Your task to perform on an android device: delete location history Image 0: 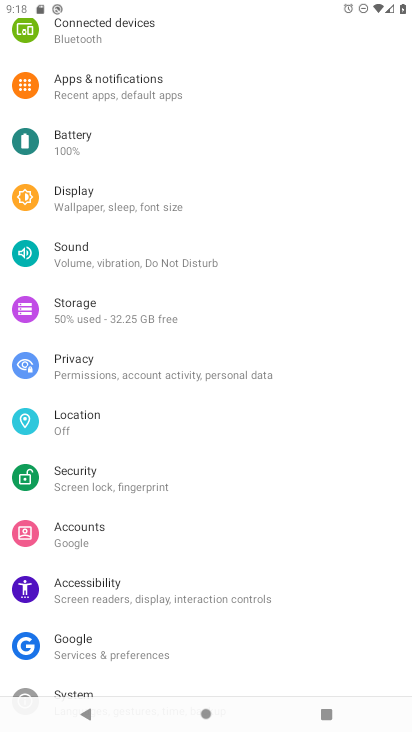
Step 0: press home button
Your task to perform on an android device: delete location history Image 1: 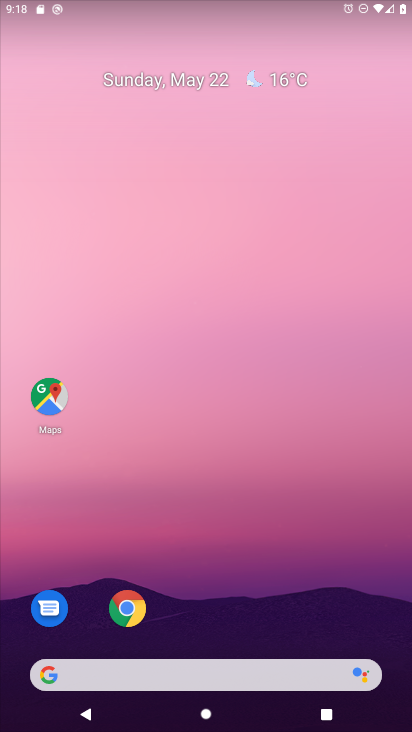
Step 1: drag from (220, 722) to (151, 24)
Your task to perform on an android device: delete location history Image 2: 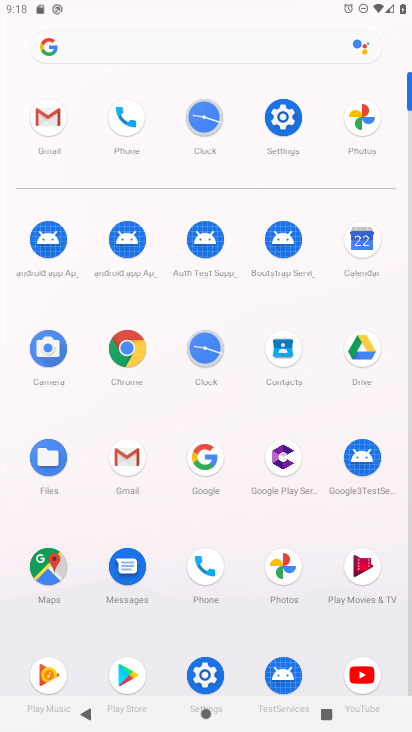
Step 2: click (46, 567)
Your task to perform on an android device: delete location history Image 3: 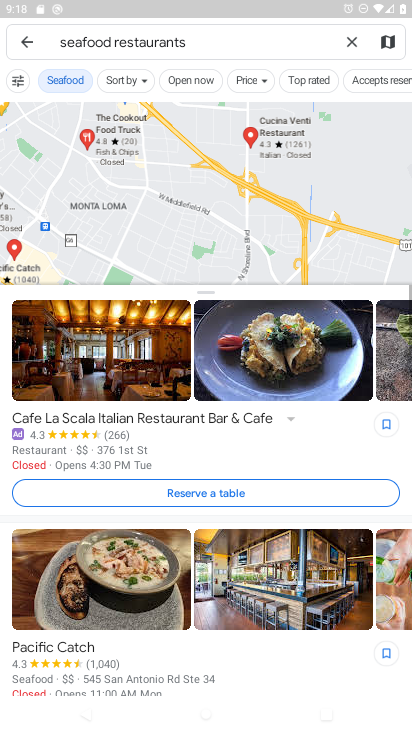
Step 3: click (26, 38)
Your task to perform on an android device: delete location history Image 4: 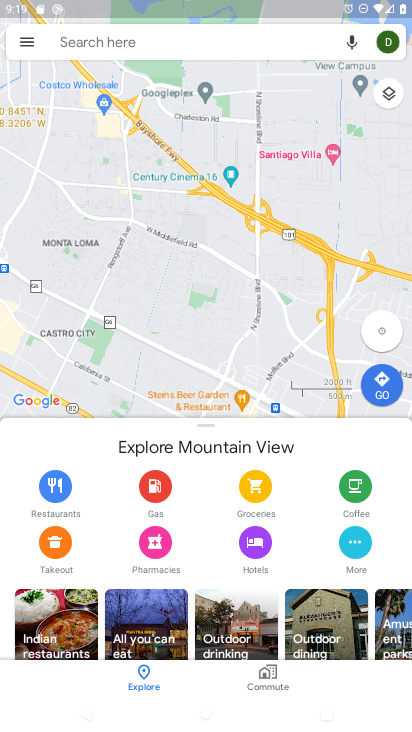
Step 4: click (24, 40)
Your task to perform on an android device: delete location history Image 5: 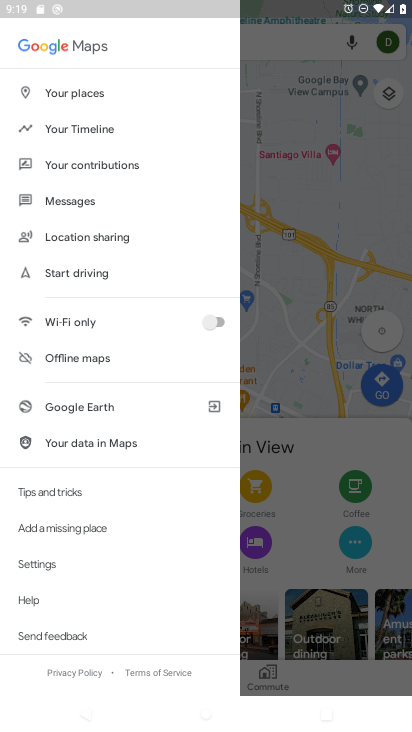
Step 5: click (85, 130)
Your task to perform on an android device: delete location history Image 6: 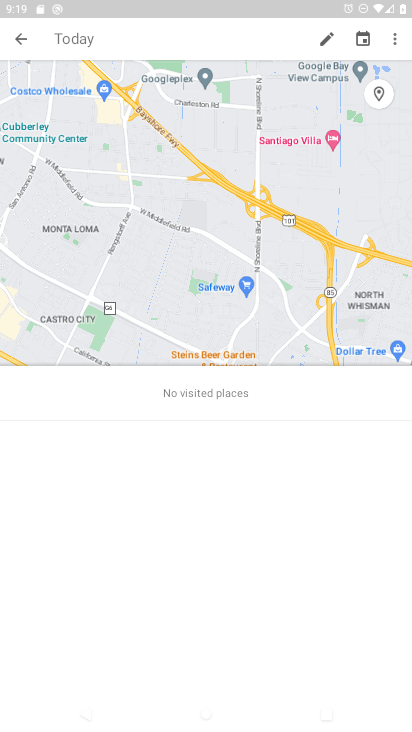
Step 6: click (397, 43)
Your task to perform on an android device: delete location history Image 7: 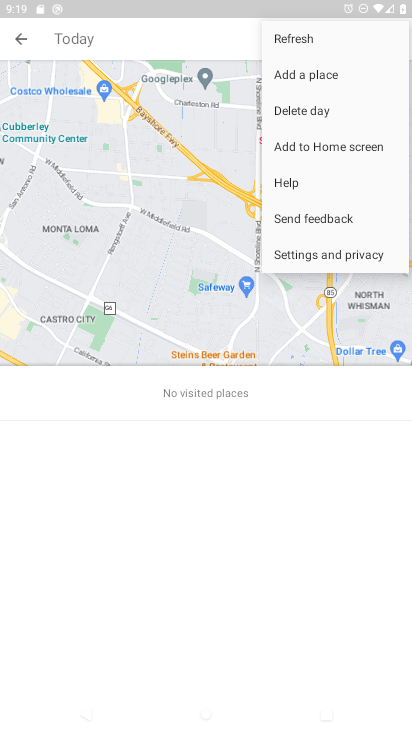
Step 7: click (326, 255)
Your task to perform on an android device: delete location history Image 8: 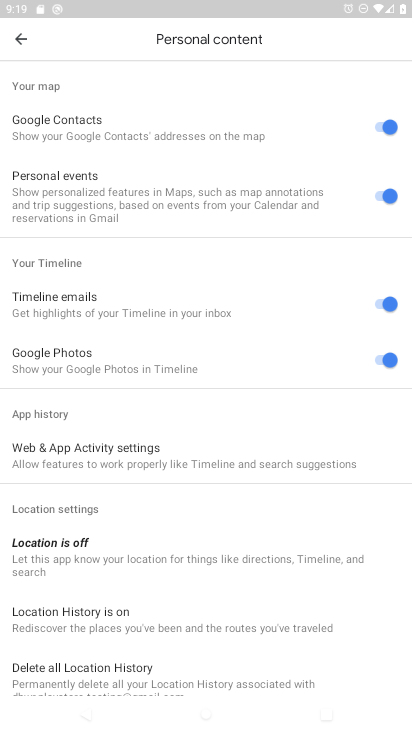
Step 8: drag from (108, 668) to (105, 351)
Your task to perform on an android device: delete location history Image 9: 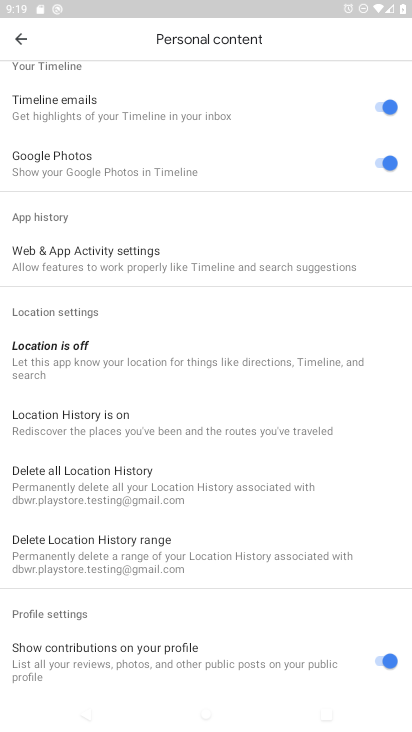
Step 9: click (114, 481)
Your task to perform on an android device: delete location history Image 10: 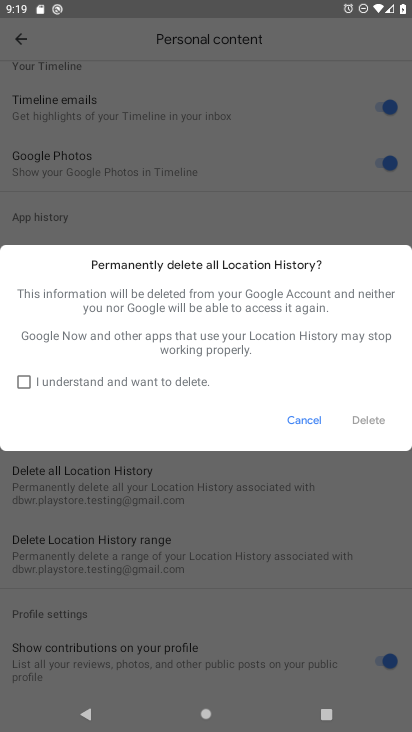
Step 10: click (21, 384)
Your task to perform on an android device: delete location history Image 11: 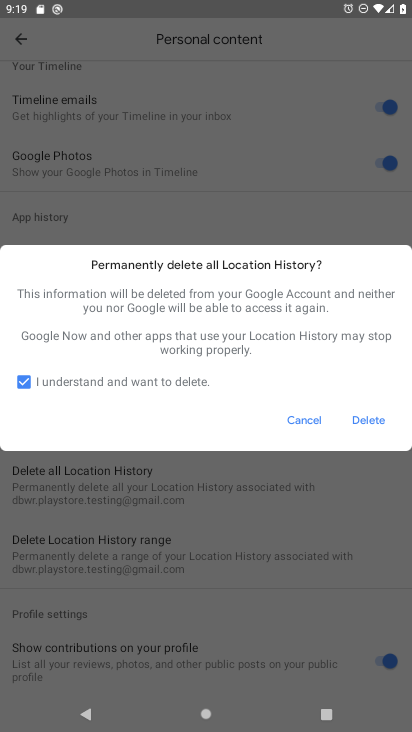
Step 11: click (370, 417)
Your task to perform on an android device: delete location history Image 12: 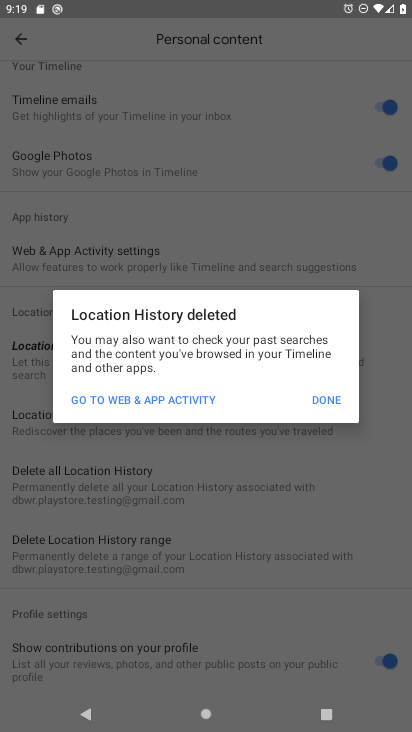
Step 12: click (326, 397)
Your task to perform on an android device: delete location history Image 13: 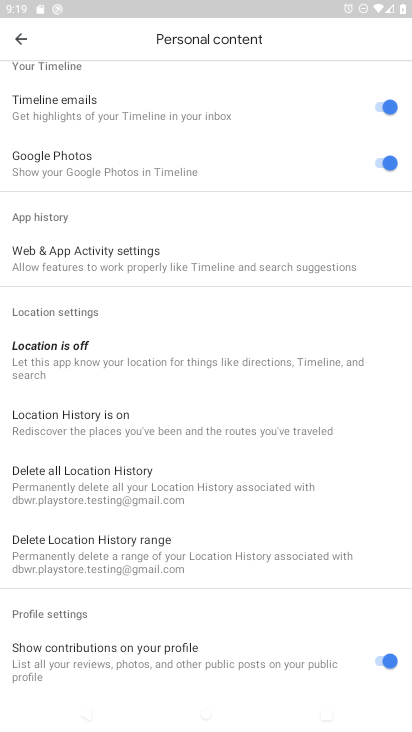
Step 13: task complete